Your task to perform on an android device: open app "Firefox Browser" Image 0: 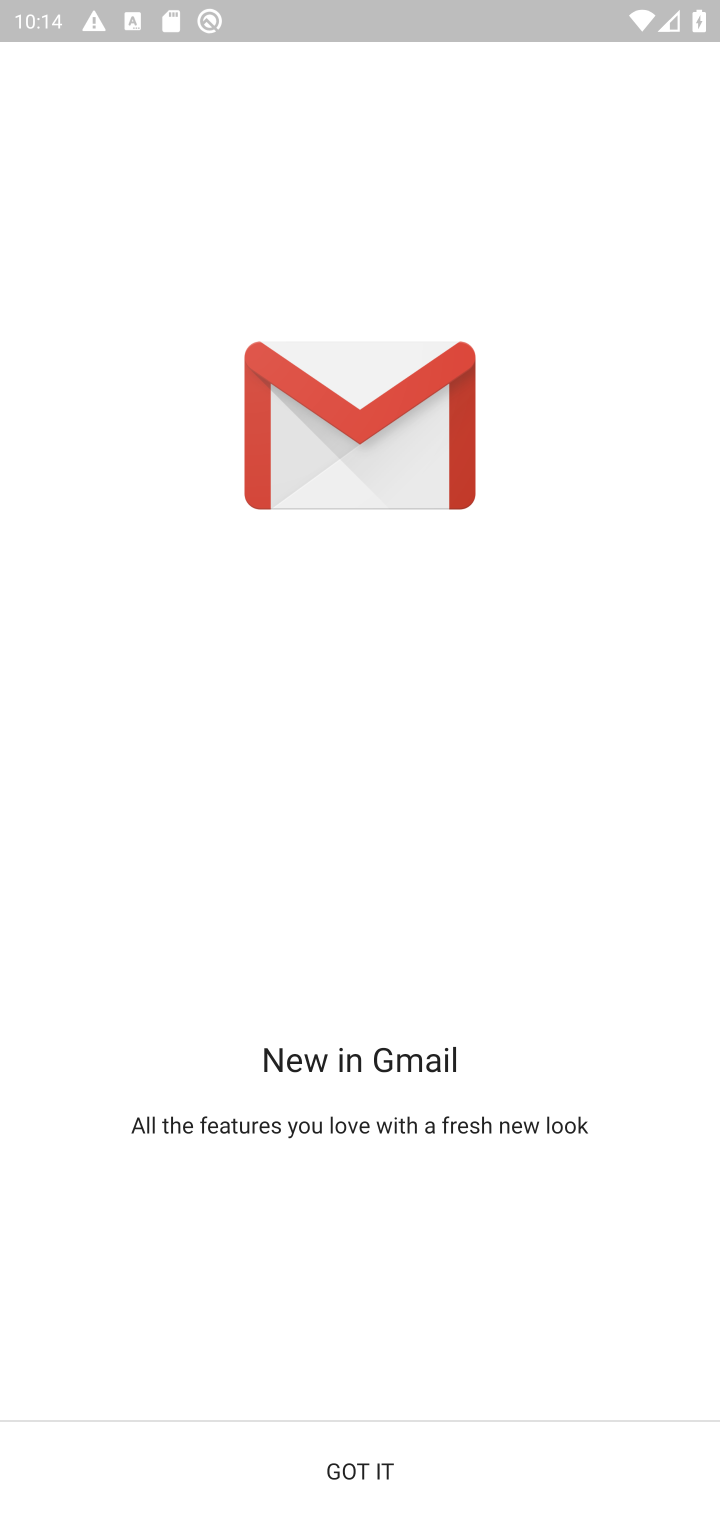
Step 0: press home button
Your task to perform on an android device: open app "Firefox Browser" Image 1: 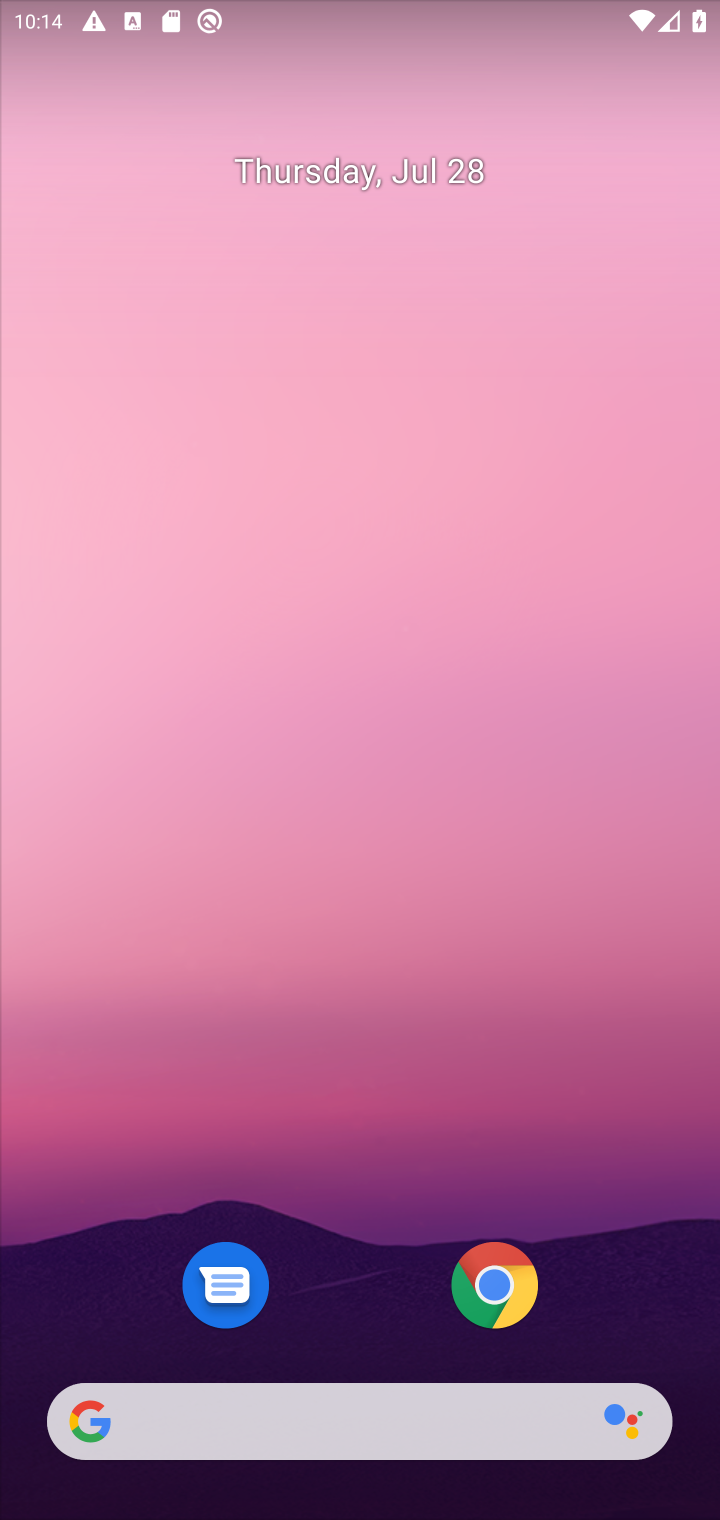
Step 1: drag from (291, 1396) to (406, 253)
Your task to perform on an android device: open app "Firefox Browser" Image 2: 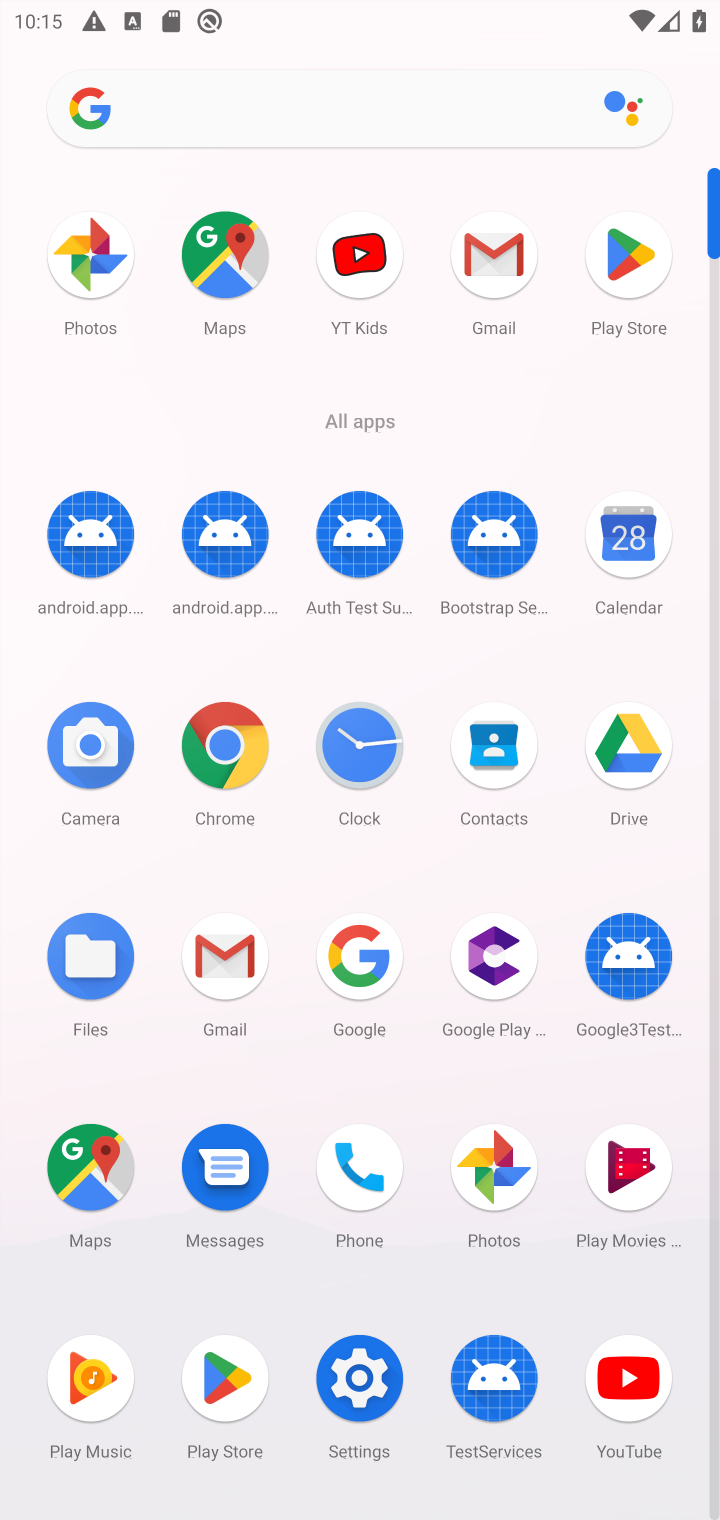
Step 2: click (629, 263)
Your task to perform on an android device: open app "Firefox Browser" Image 3: 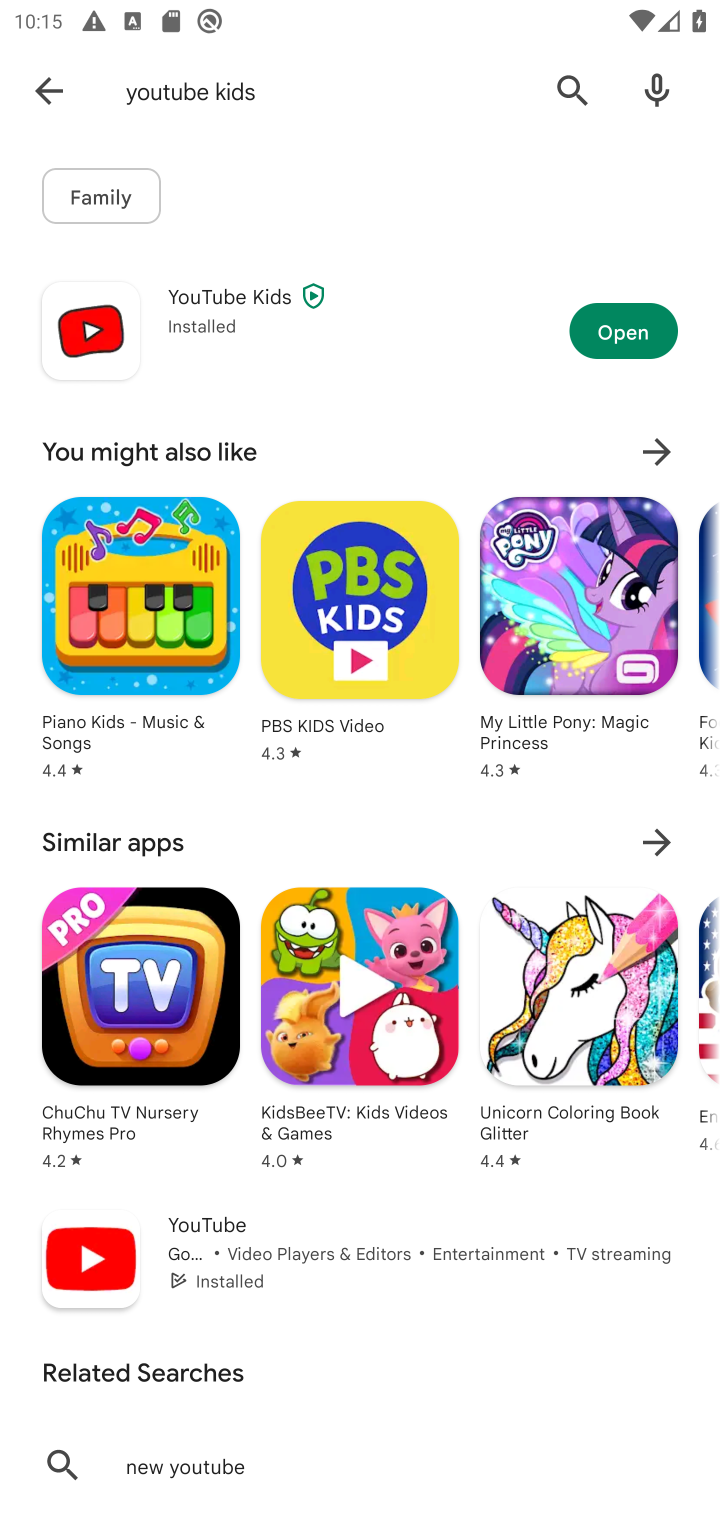
Step 3: click (559, 91)
Your task to perform on an android device: open app "Firefox Browser" Image 4: 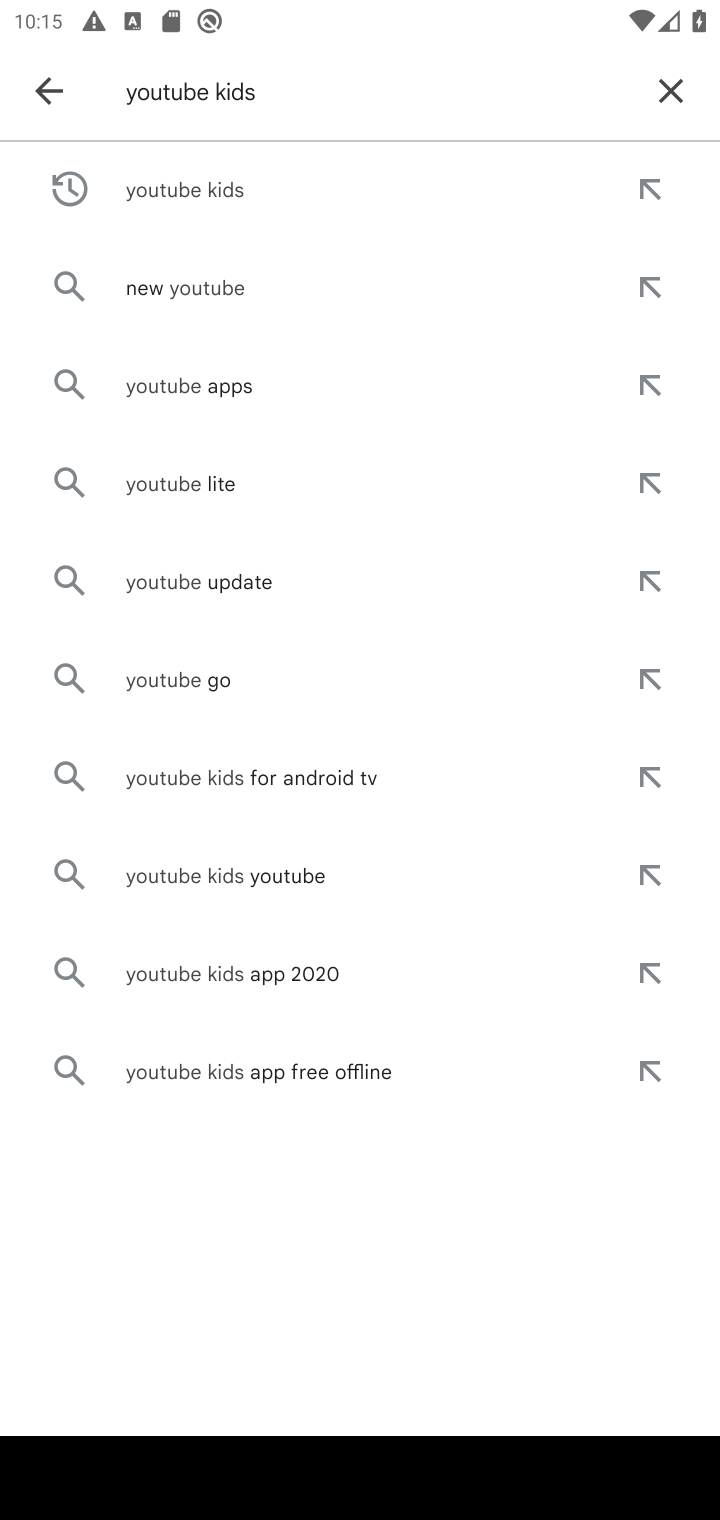
Step 4: click (669, 86)
Your task to perform on an android device: open app "Firefox Browser" Image 5: 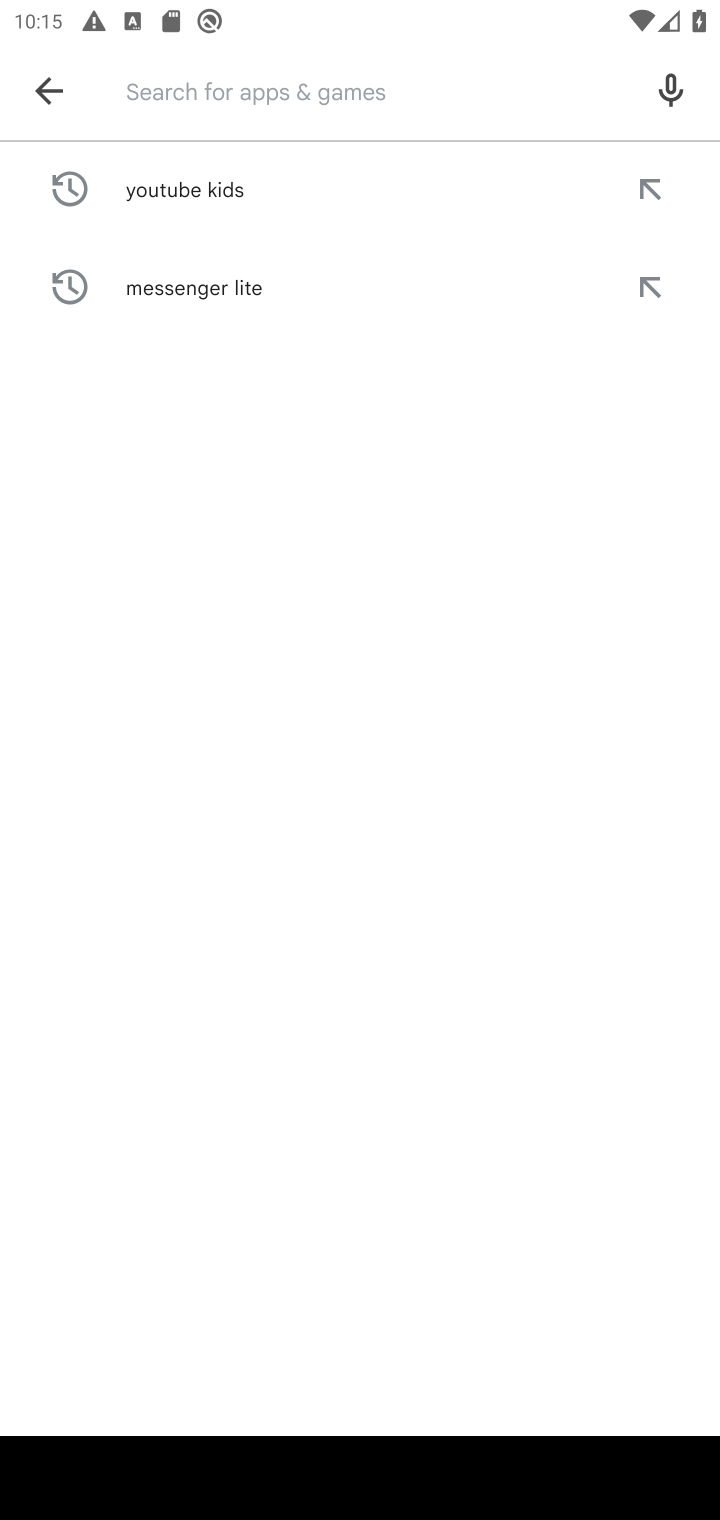
Step 5: type "Firefox Browser"
Your task to perform on an android device: open app "Firefox Browser" Image 6: 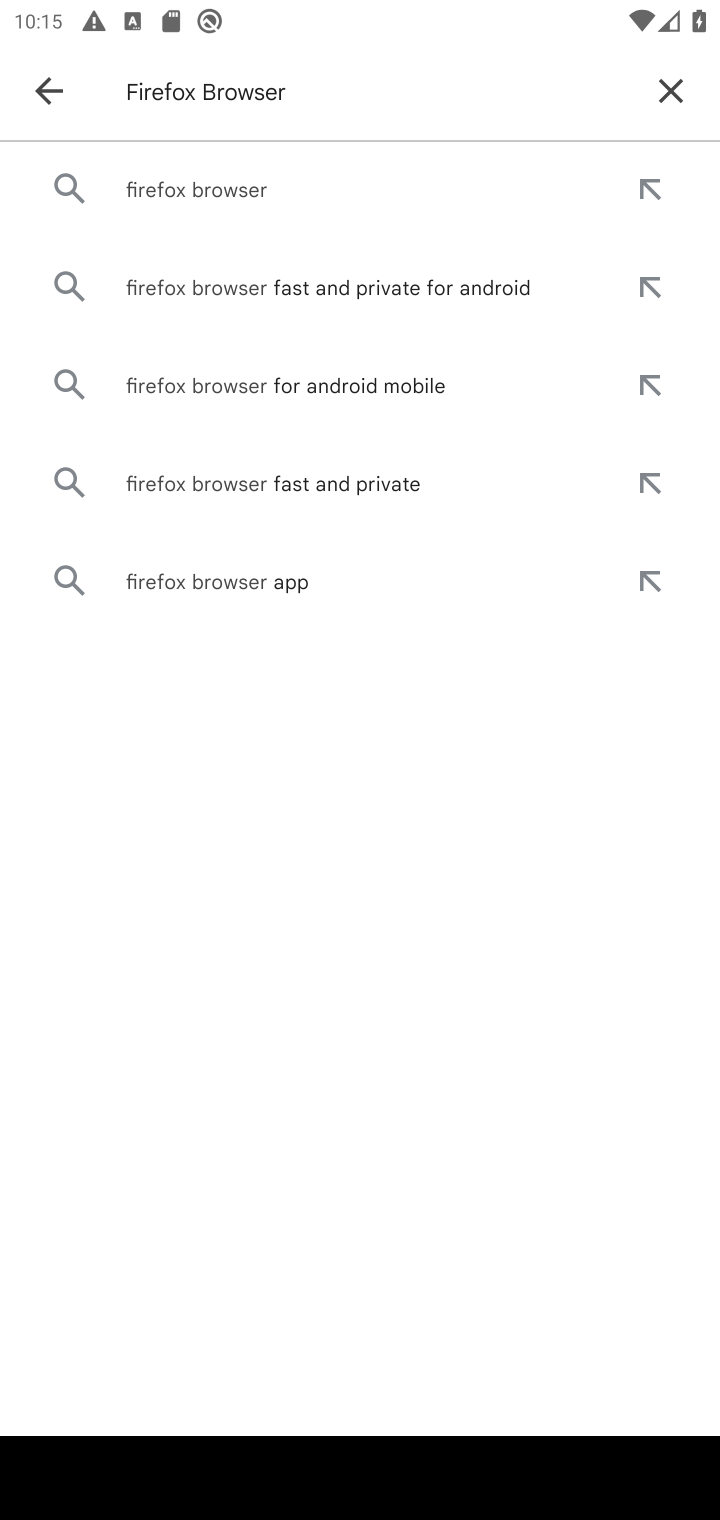
Step 6: click (244, 172)
Your task to perform on an android device: open app "Firefox Browser" Image 7: 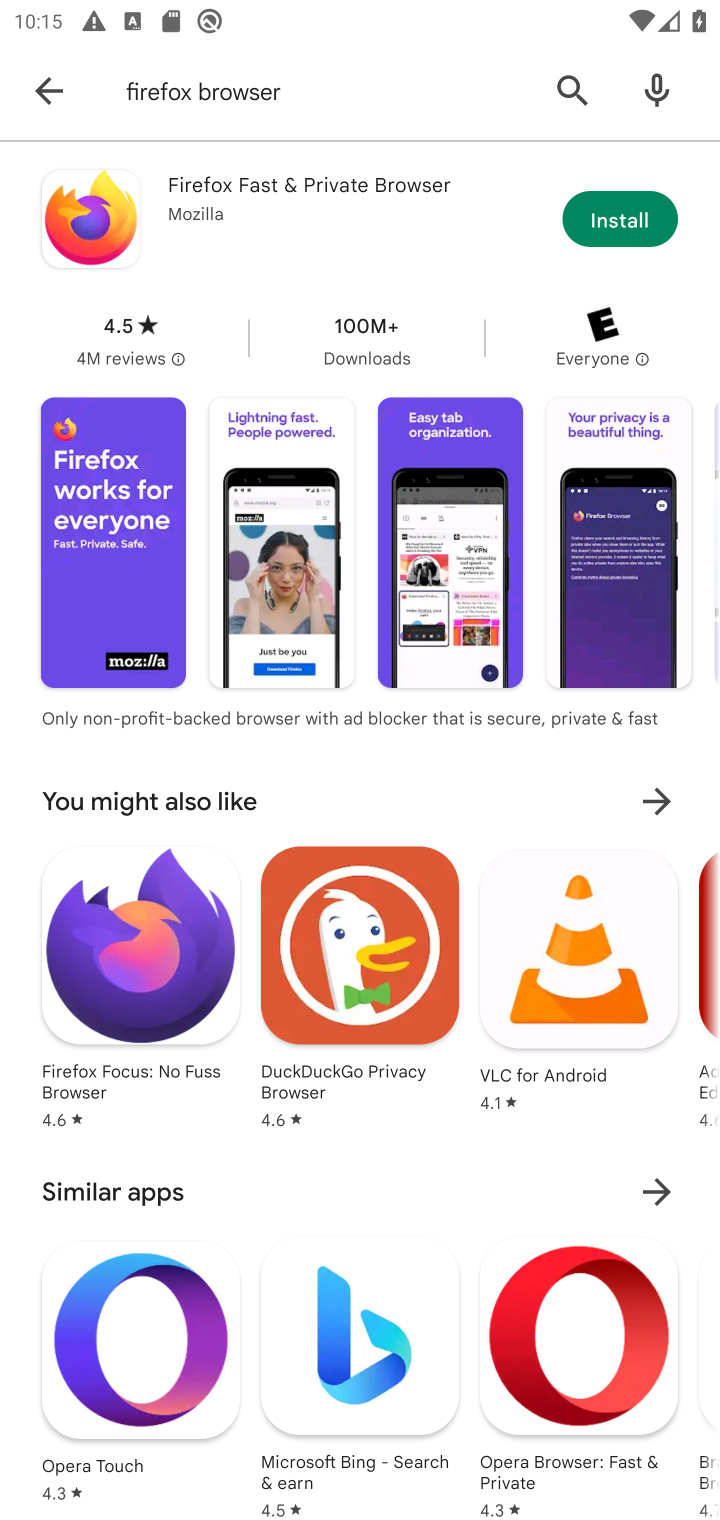
Step 7: task complete